Your task to perform on an android device: visit the assistant section in the google photos Image 0: 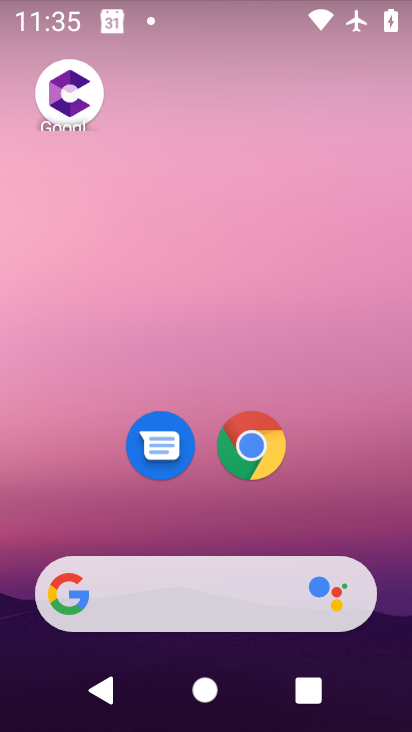
Step 0: drag from (356, 549) to (360, 115)
Your task to perform on an android device: visit the assistant section in the google photos Image 1: 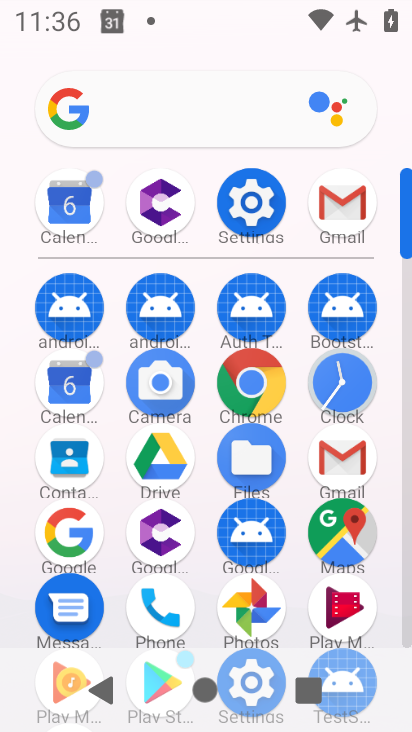
Step 1: click (238, 601)
Your task to perform on an android device: visit the assistant section in the google photos Image 2: 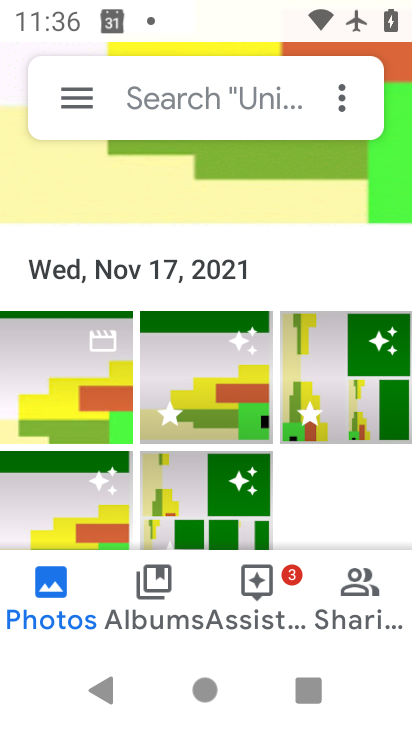
Step 2: click (254, 582)
Your task to perform on an android device: visit the assistant section in the google photos Image 3: 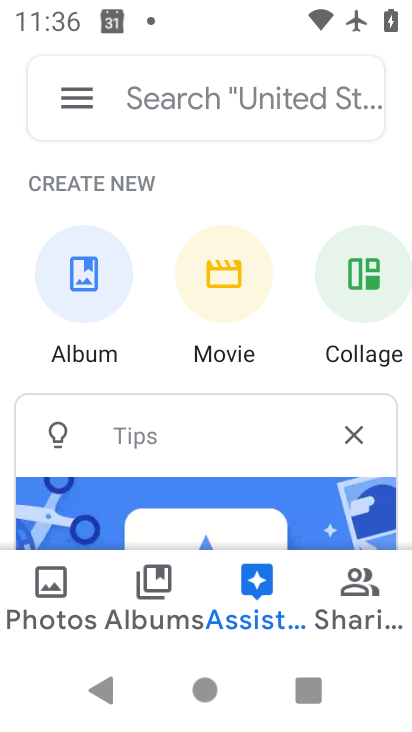
Step 3: task complete